Your task to perform on an android device: Open Reddit.com Image 0: 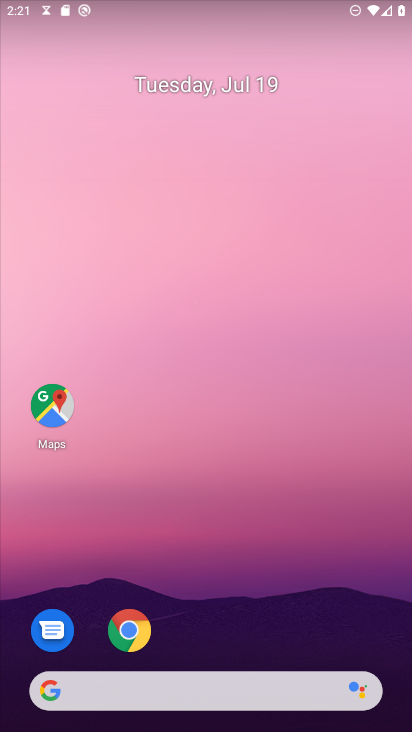
Step 0: press home button
Your task to perform on an android device: Open Reddit.com Image 1: 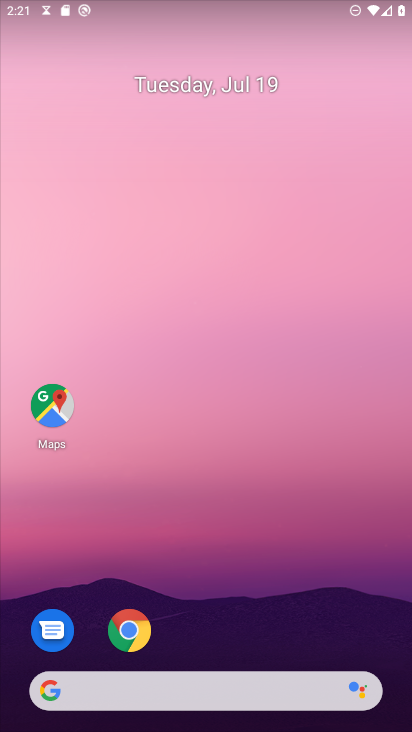
Step 1: press home button
Your task to perform on an android device: Open Reddit.com Image 2: 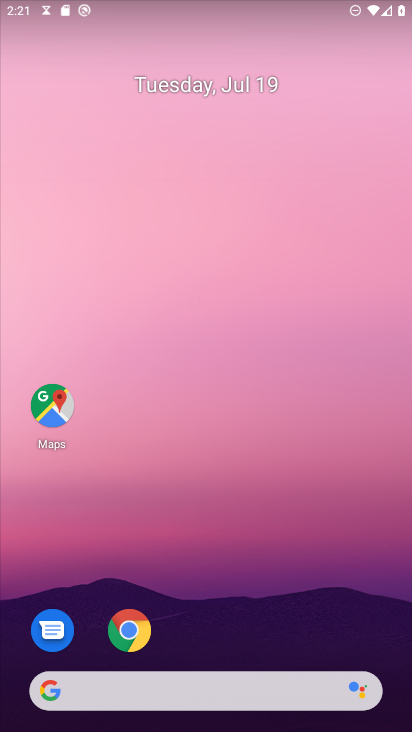
Step 2: click (122, 640)
Your task to perform on an android device: Open Reddit.com Image 3: 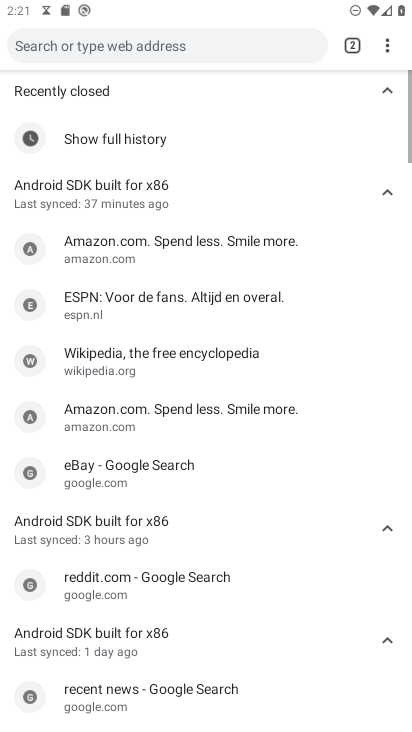
Step 3: drag from (379, 45) to (252, 84)
Your task to perform on an android device: Open Reddit.com Image 4: 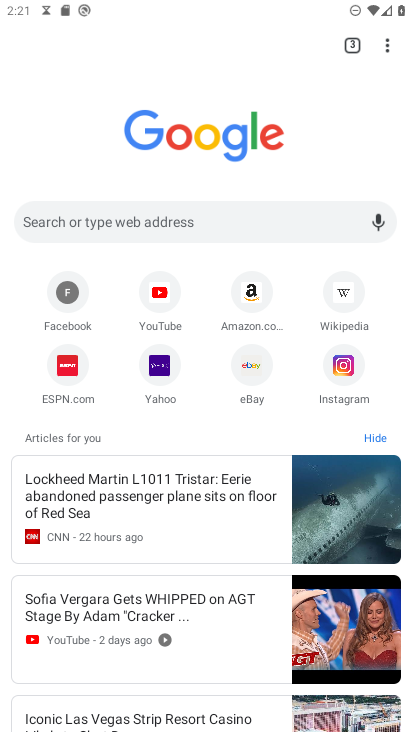
Step 4: click (58, 220)
Your task to perform on an android device: Open Reddit.com Image 5: 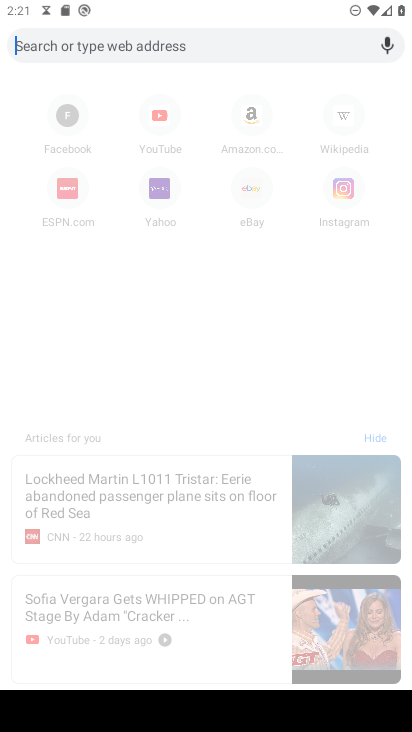
Step 5: type "reddit.com"
Your task to perform on an android device: Open Reddit.com Image 6: 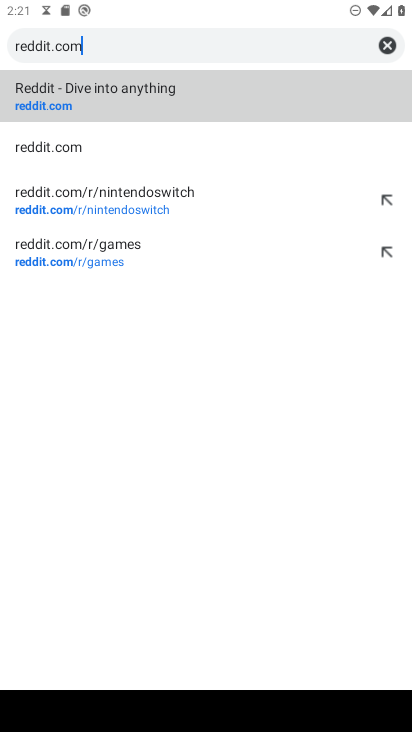
Step 6: click (133, 103)
Your task to perform on an android device: Open Reddit.com Image 7: 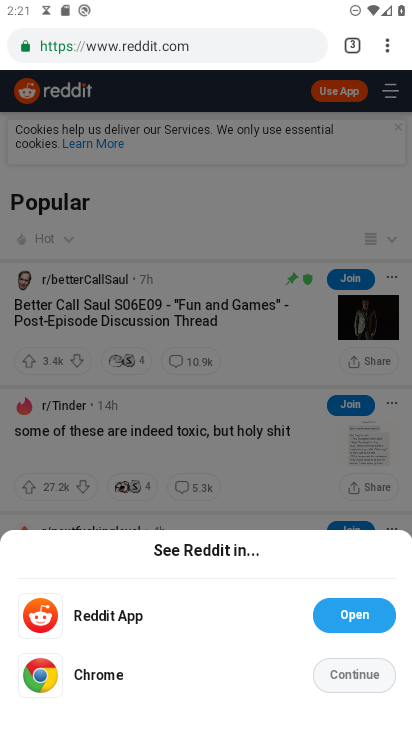
Step 7: task complete